Your task to perform on an android device: toggle javascript in the chrome app Image 0: 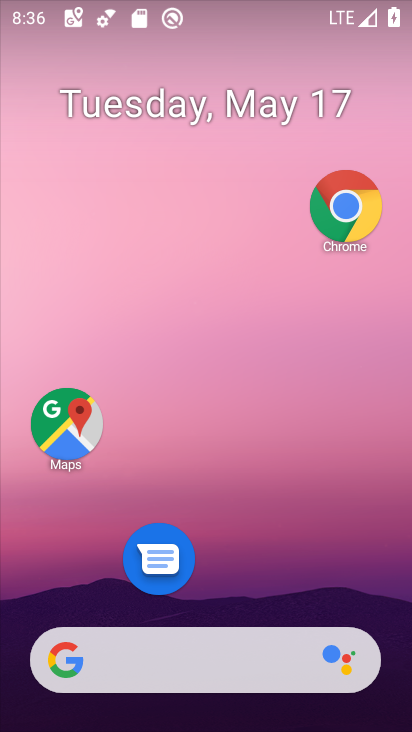
Step 0: click (340, 234)
Your task to perform on an android device: toggle javascript in the chrome app Image 1: 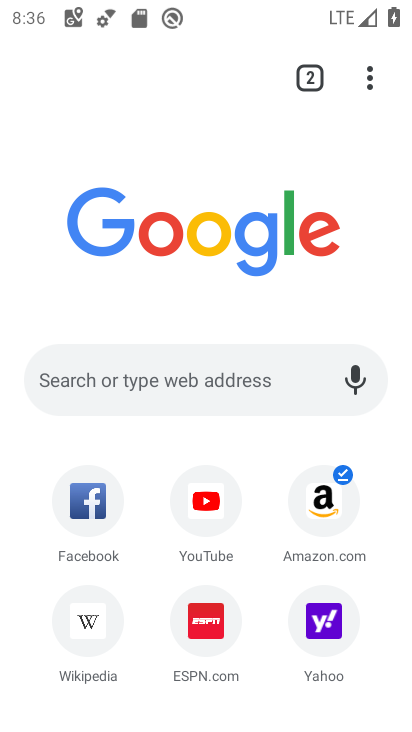
Step 1: click (366, 72)
Your task to perform on an android device: toggle javascript in the chrome app Image 2: 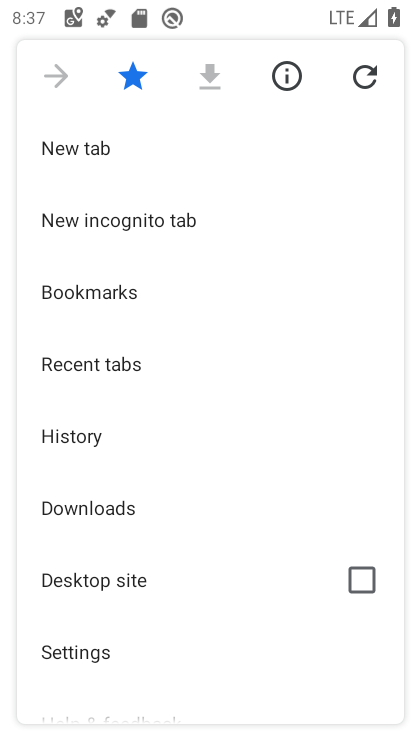
Step 2: drag from (145, 639) to (175, 418)
Your task to perform on an android device: toggle javascript in the chrome app Image 3: 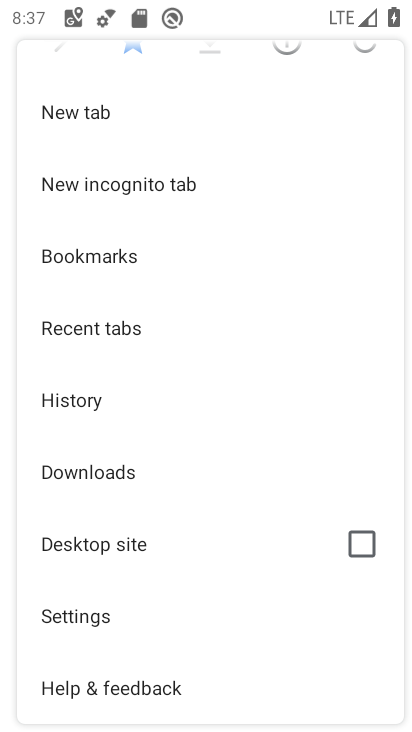
Step 3: click (109, 620)
Your task to perform on an android device: toggle javascript in the chrome app Image 4: 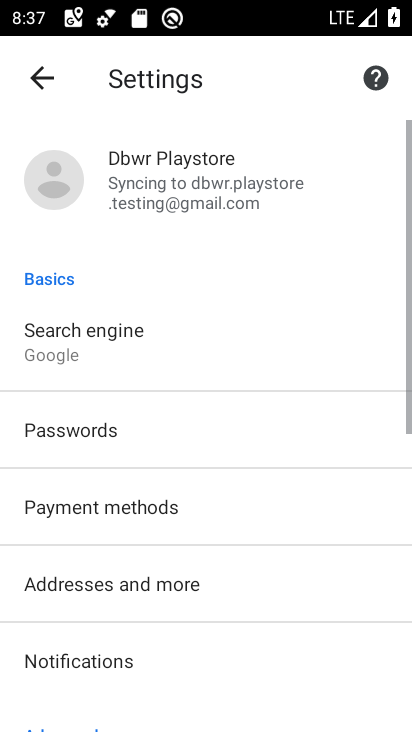
Step 4: drag from (109, 620) to (171, 295)
Your task to perform on an android device: toggle javascript in the chrome app Image 5: 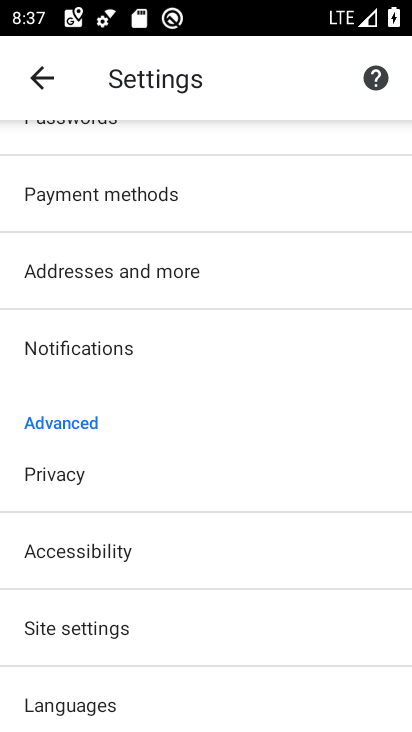
Step 5: drag from (169, 593) to (216, 382)
Your task to perform on an android device: toggle javascript in the chrome app Image 6: 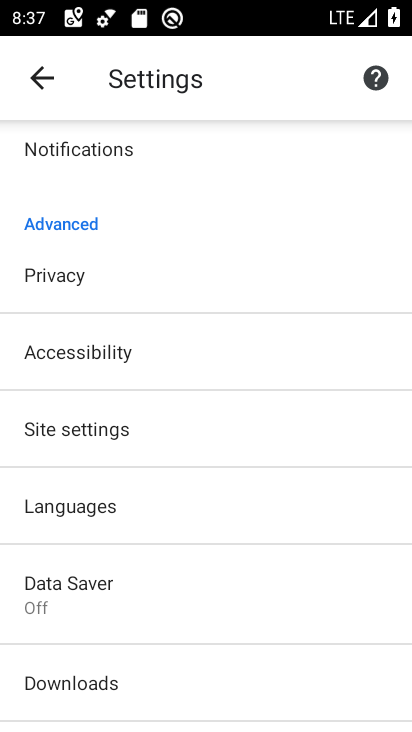
Step 6: click (139, 440)
Your task to perform on an android device: toggle javascript in the chrome app Image 7: 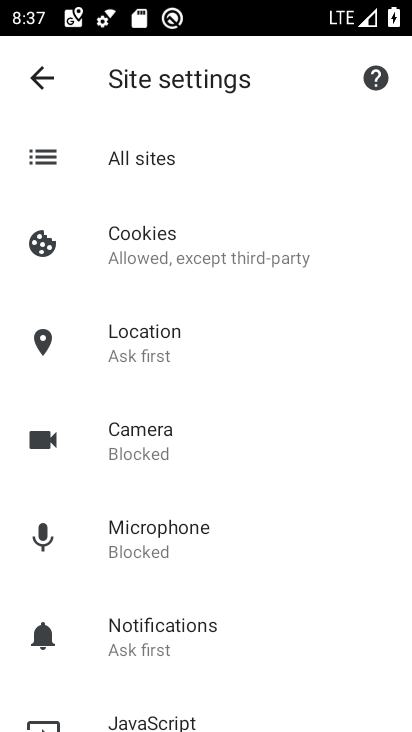
Step 7: click (178, 716)
Your task to perform on an android device: toggle javascript in the chrome app Image 8: 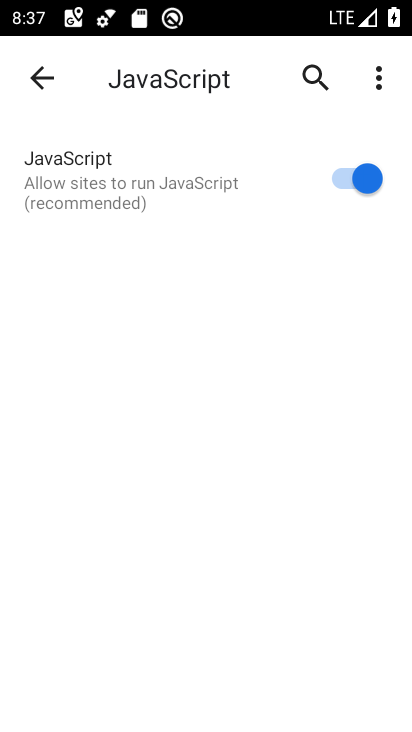
Step 8: click (332, 190)
Your task to perform on an android device: toggle javascript in the chrome app Image 9: 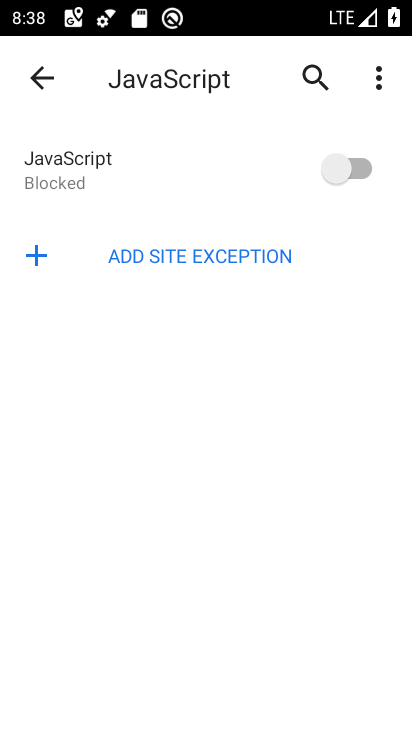
Step 9: task complete